Your task to perform on an android device: create a new album in the google photos Image 0: 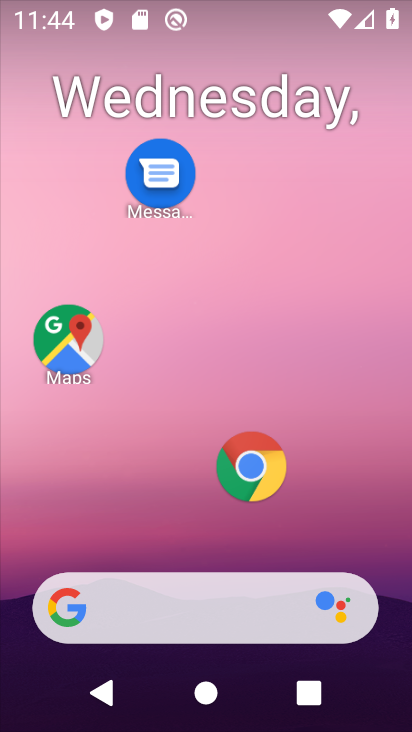
Step 0: drag from (186, 445) to (192, 93)
Your task to perform on an android device: create a new album in the google photos Image 1: 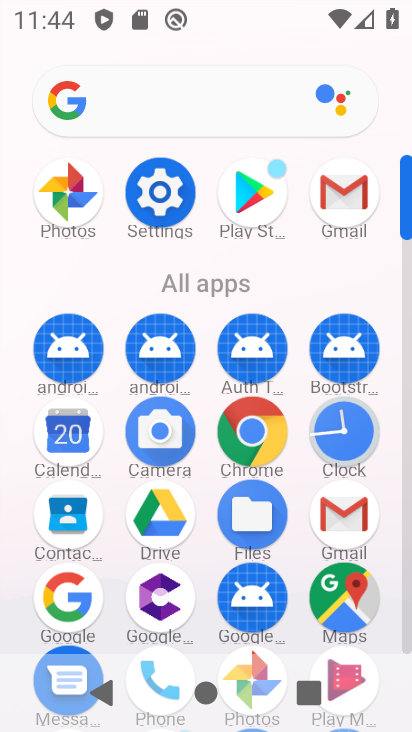
Step 1: click (88, 195)
Your task to perform on an android device: create a new album in the google photos Image 2: 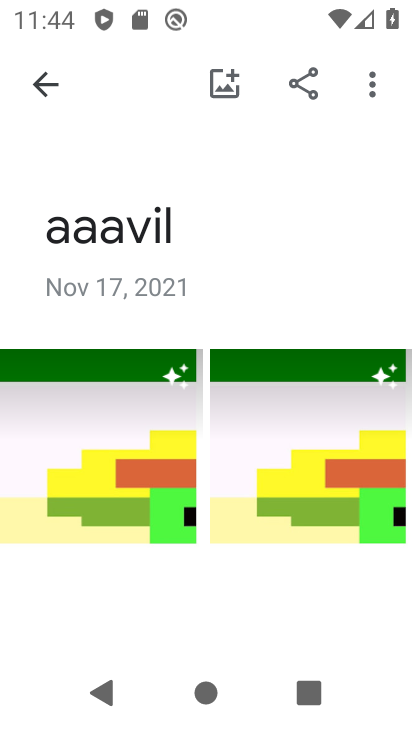
Step 2: click (375, 91)
Your task to perform on an android device: create a new album in the google photos Image 3: 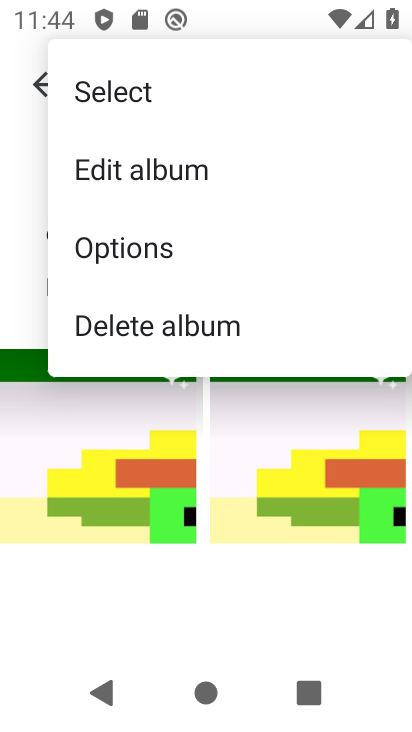
Step 3: click (18, 75)
Your task to perform on an android device: create a new album in the google photos Image 4: 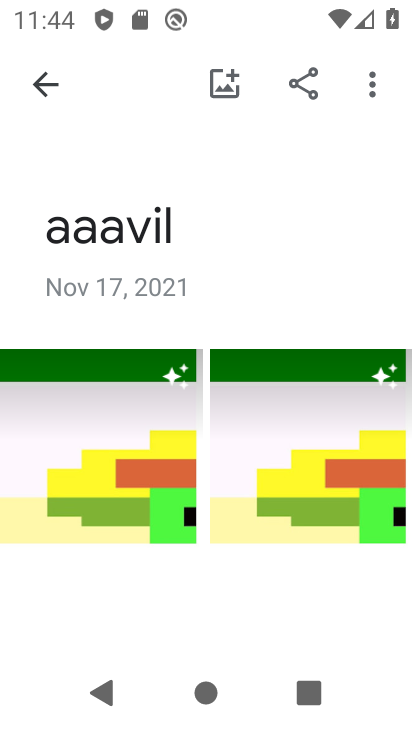
Step 4: click (28, 78)
Your task to perform on an android device: create a new album in the google photos Image 5: 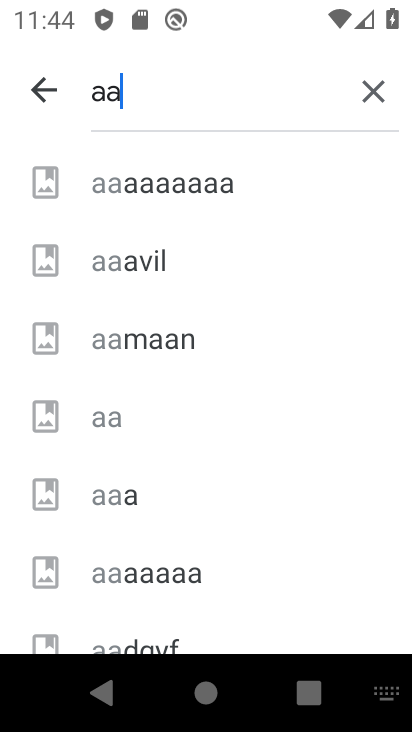
Step 5: click (56, 90)
Your task to perform on an android device: create a new album in the google photos Image 6: 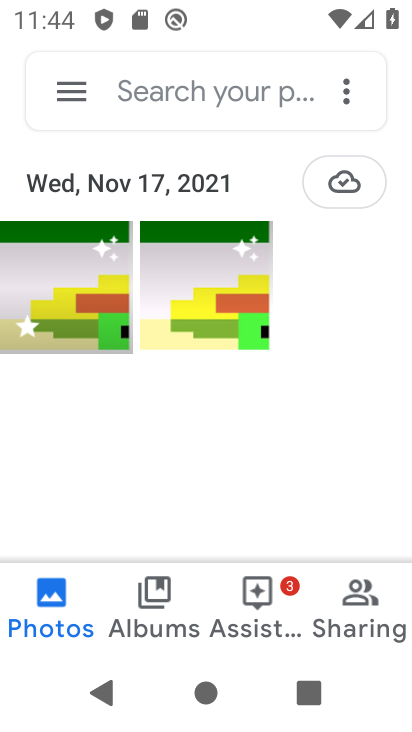
Step 6: click (339, 78)
Your task to perform on an android device: create a new album in the google photos Image 7: 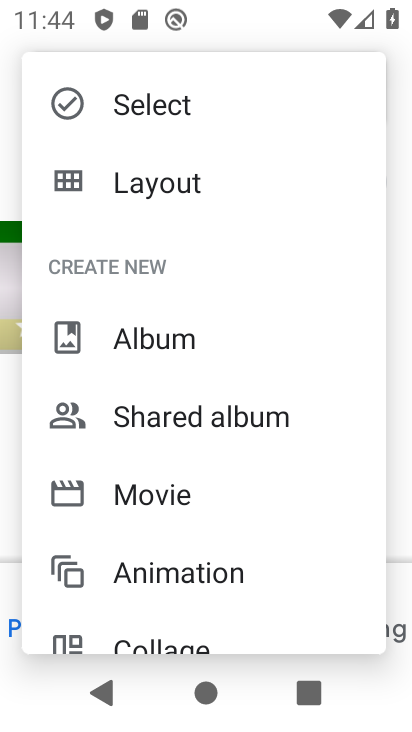
Step 7: click (149, 333)
Your task to perform on an android device: create a new album in the google photos Image 8: 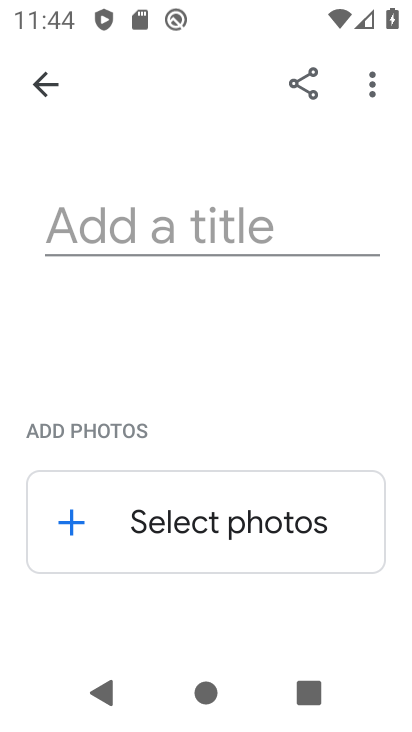
Step 8: click (189, 234)
Your task to perform on an android device: create a new album in the google photos Image 9: 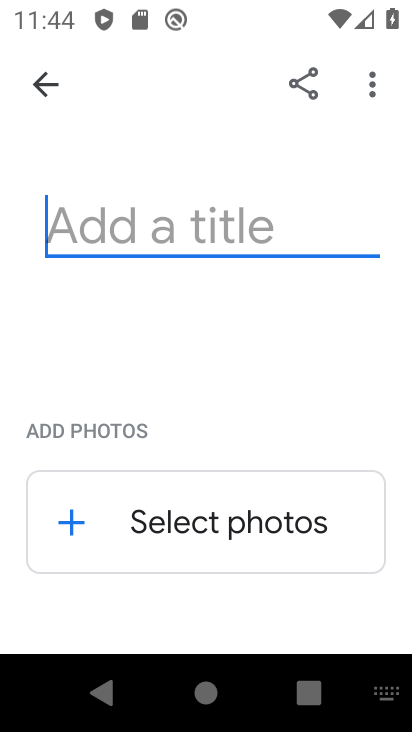
Step 9: type "hfd"
Your task to perform on an android device: create a new album in the google photos Image 10: 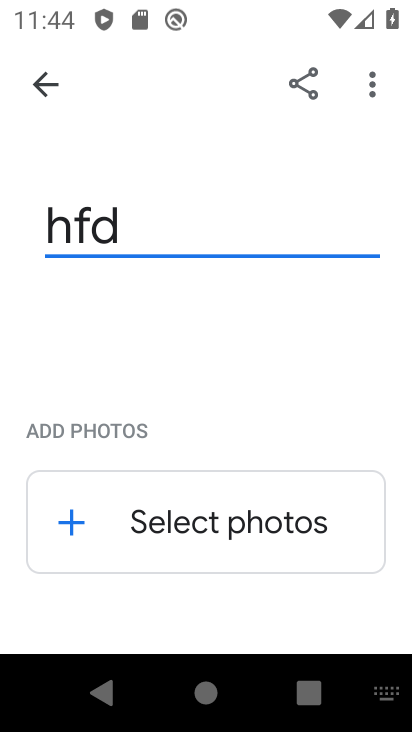
Step 10: click (65, 517)
Your task to perform on an android device: create a new album in the google photos Image 11: 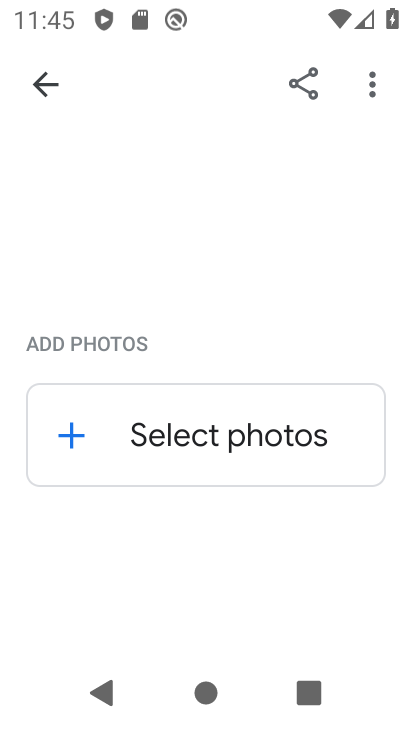
Step 11: click (66, 431)
Your task to perform on an android device: create a new album in the google photos Image 12: 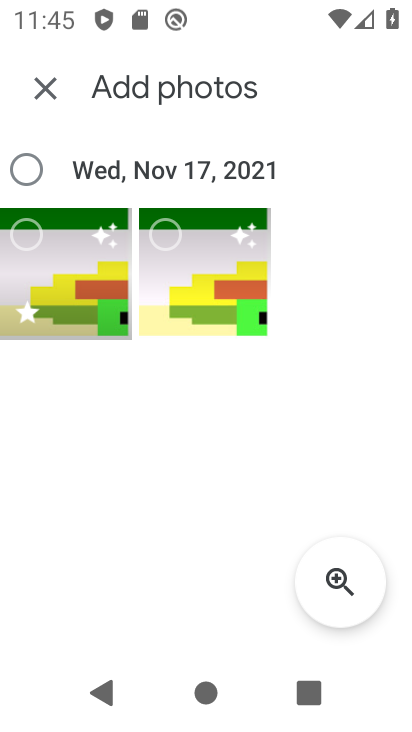
Step 12: click (166, 224)
Your task to perform on an android device: create a new album in the google photos Image 13: 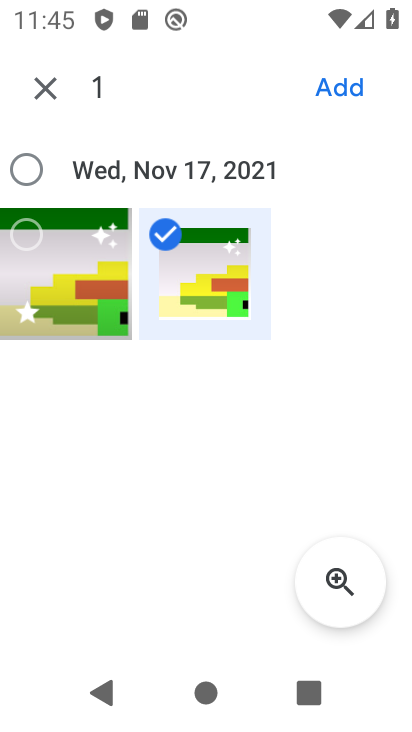
Step 13: click (337, 93)
Your task to perform on an android device: create a new album in the google photos Image 14: 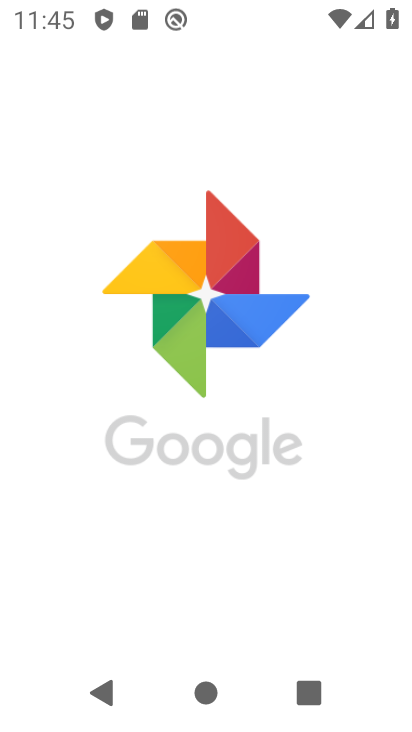
Step 14: task complete